Your task to perform on an android device: What's on my calendar today? Image 0: 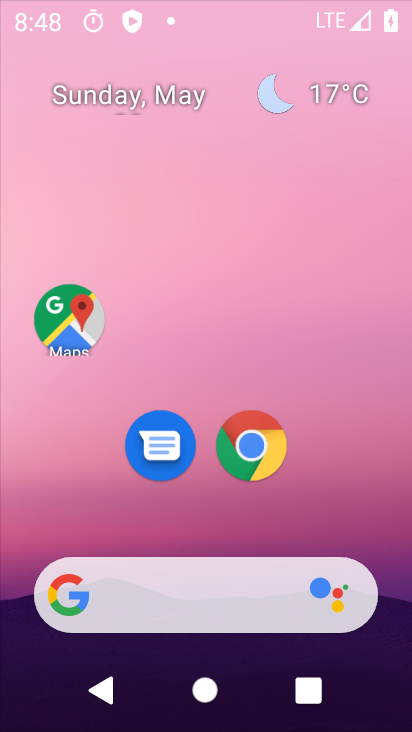
Step 0: click (405, 171)
Your task to perform on an android device: What's on my calendar today? Image 1: 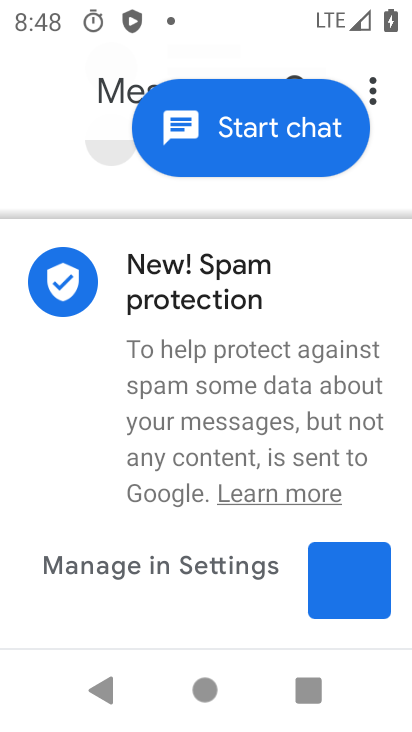
Step 1: press home button
Your task to perform on an android device: What's on my calendar today? Image 2: 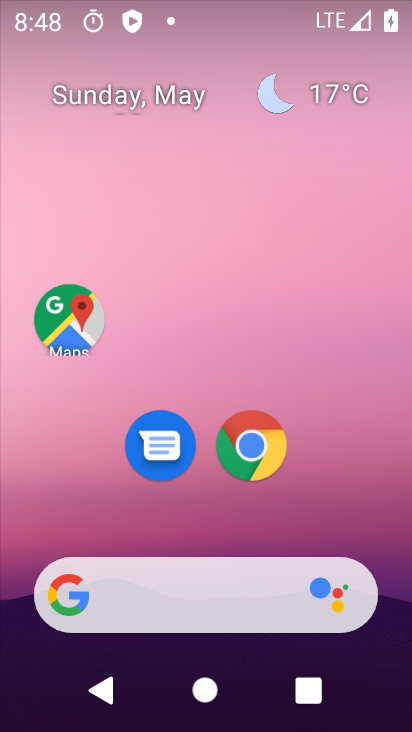
Step 2: drag from (226, 525) to (263, 52)
Your task to perform on an android device: What's on my calendar today? Image 3: 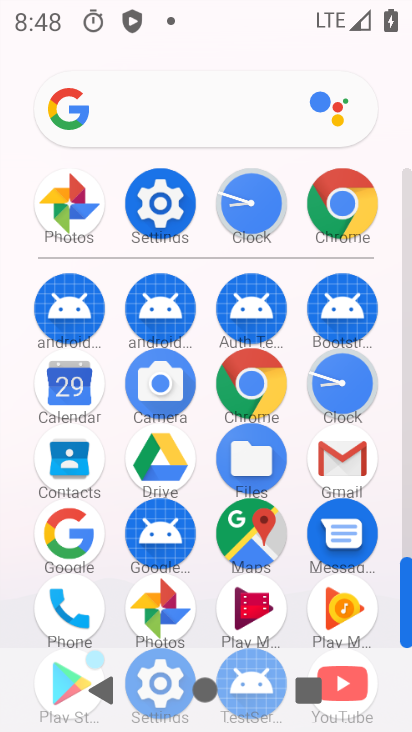
Step 3: click (60, 393)
Your task to perform on an android device: What's on my calendar today? Image 4: 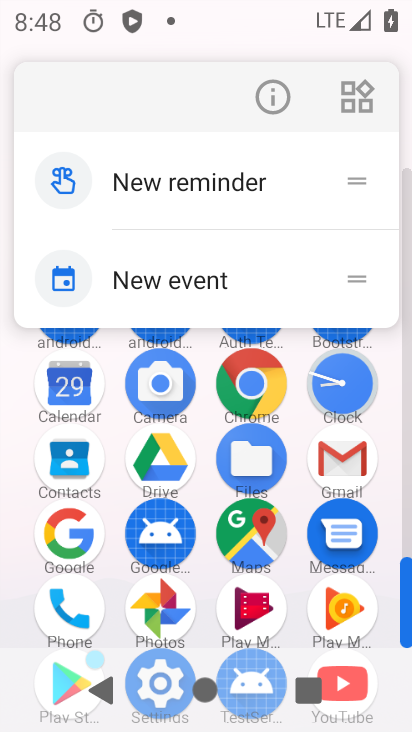
Step 4: click (277, 114)
Your task to perform on an android device: What's on my calendar today? Image 5: 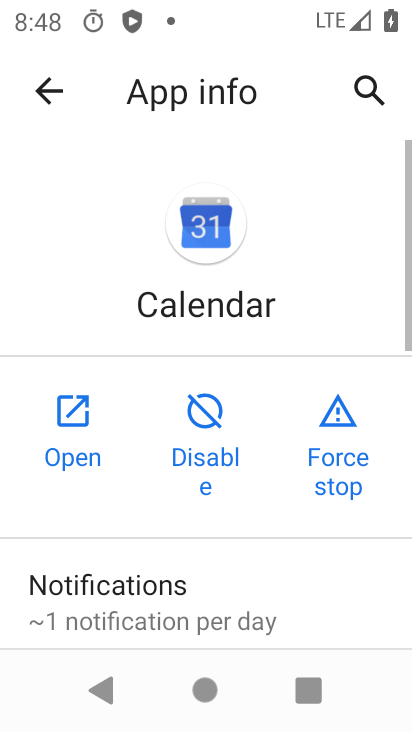
Step 5: click (60, 420)
Your task to perform on an android device: What's on my calendar today? Image 6: 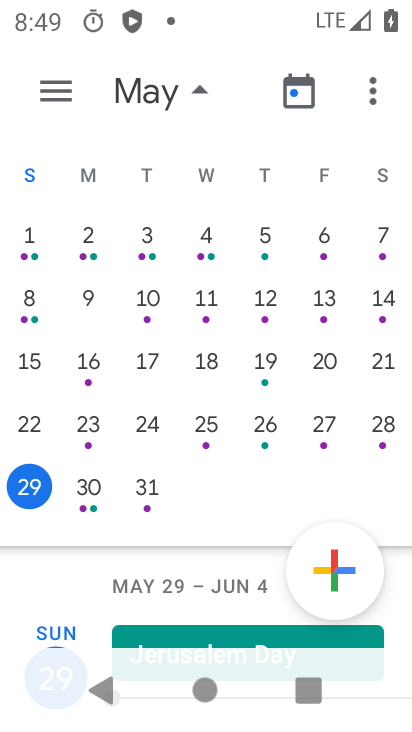
Step 6: drag from (94, 488) to (38, 480)
Your task to perform on an android device: What's on my calendar today? Image 7: 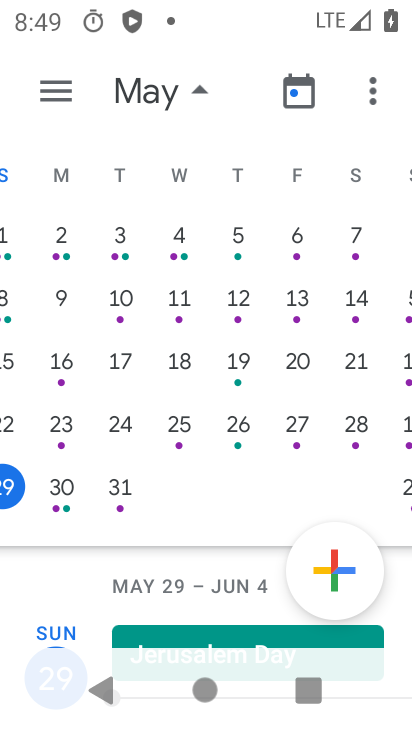
Step 7: click (37, 479)
Your task to perform on an android device: What's on my calendar today? Image 8: 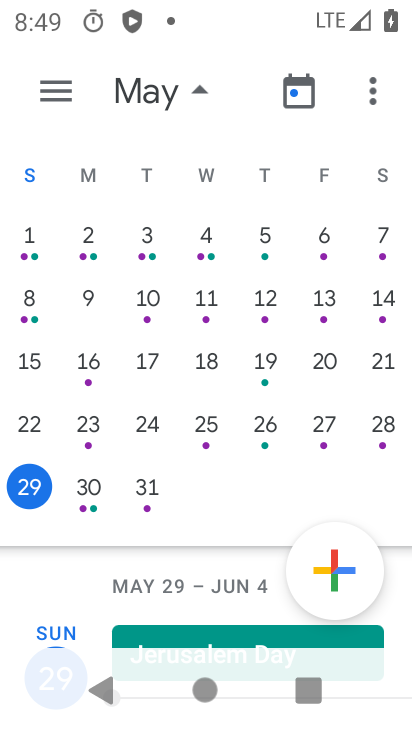
Step 8: click (37, 479)
Your task to perform on an android device: What's on my calendar today? Image 9: 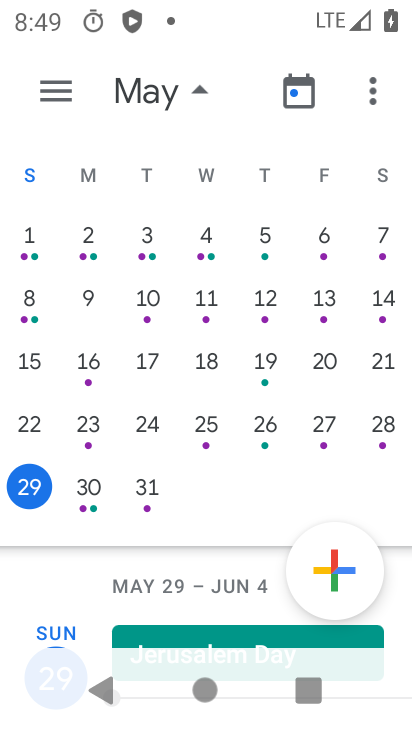
Step 9: task complete